Your task to perform on an android device: toggle notification dots Image 0: 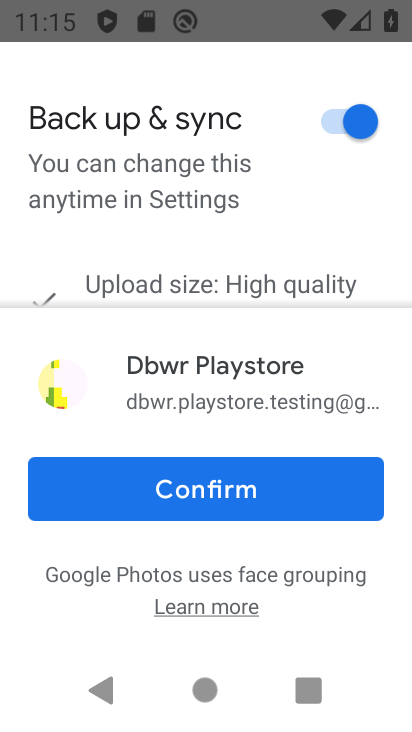
Step 0: press back button
Your task to perform on an android device: toggle notification dots Image 1: 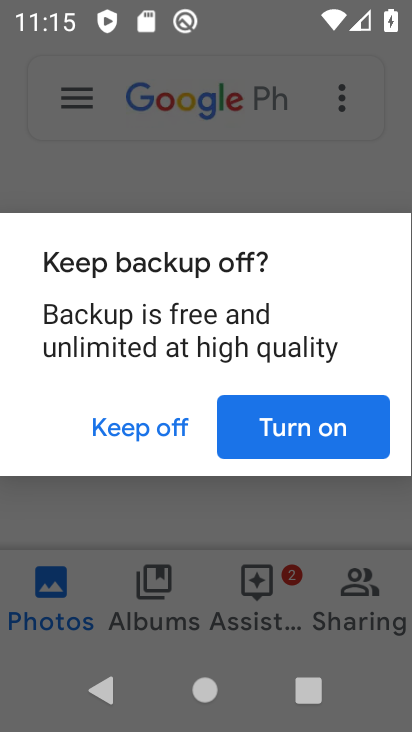
Step 1: press home button
Your task to perform on an android device: toggle notification dots Image 2: 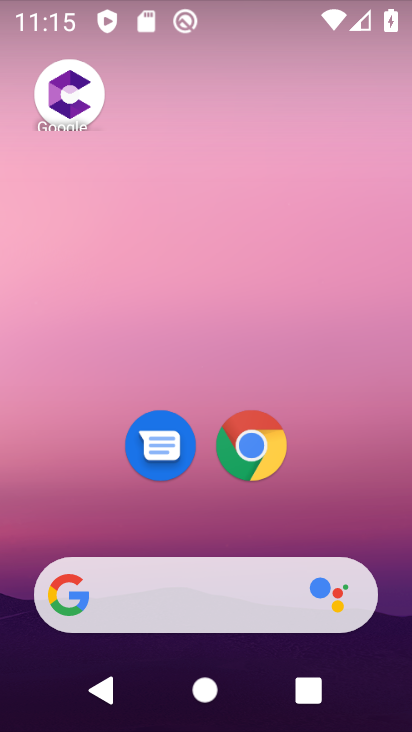
Step 2: drag from (163, 551) to (204, 270)
Your task to perform on an android device: toggle notification dots Image 3: 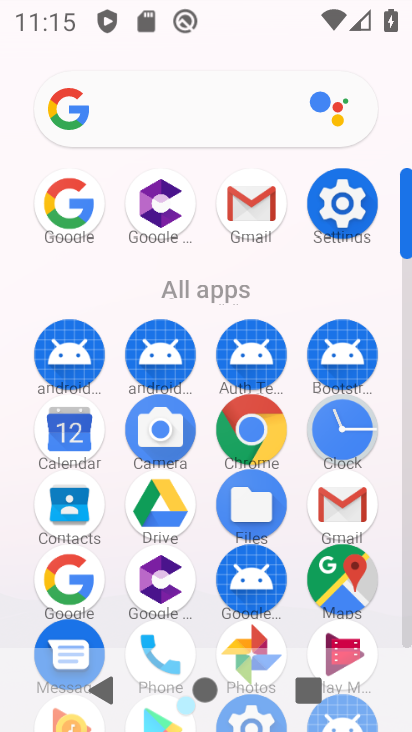
Step 3: drag from (164, 632) to (257, 240)
Your task to perform on an android device: toggle notification dots Image 4: 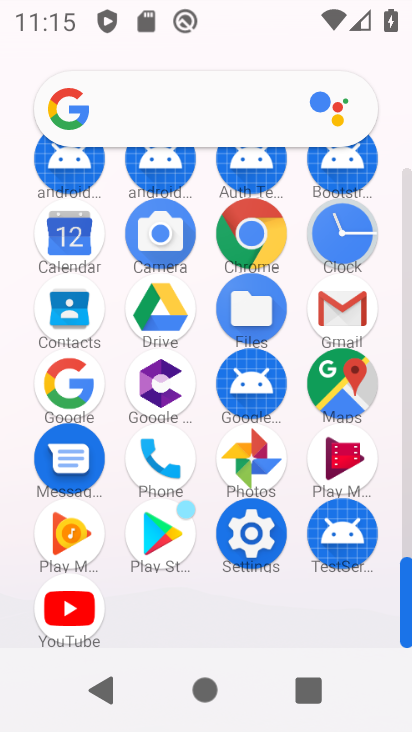
Step 4: click (233, 538)
Your task to perform on an android device: toggle notification dots Image 5: 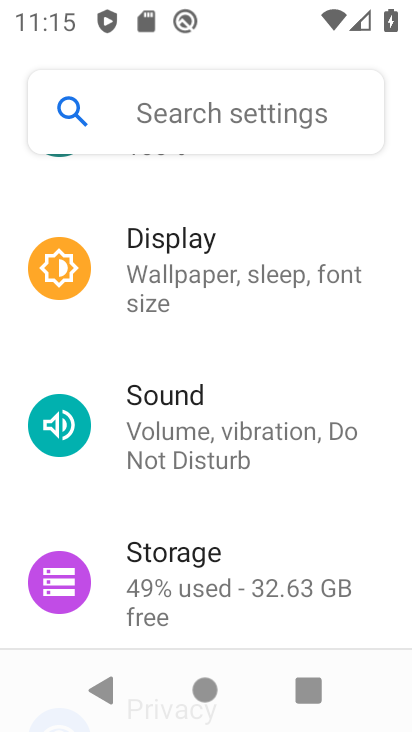
Step 5: drag from (200, 304) to (166, 719)
Your task to perform on an android device: toggle notification dots Image 6: 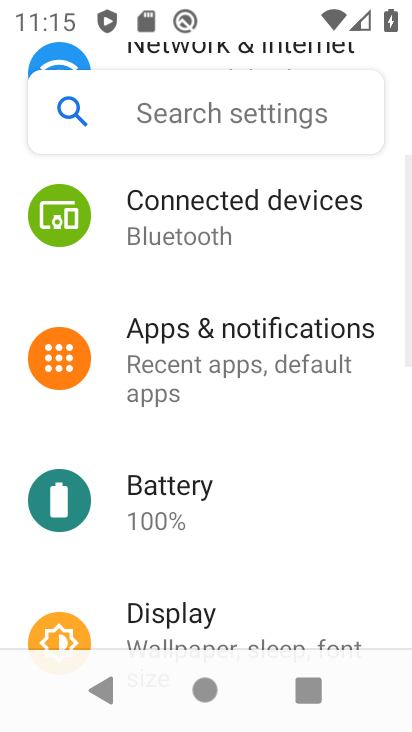
Step 6: click (202, 374)
Your task to perform on an android device: toggle notification dots Image 7: 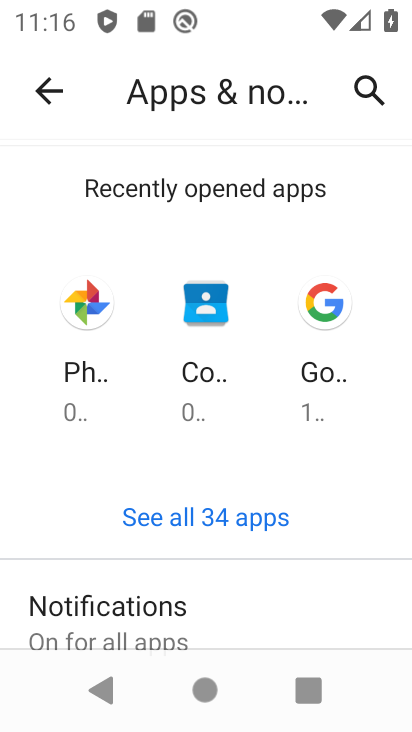
Step 7: click (152, 605)
Your task to perform on an android device: toggle notification dots Image 8: 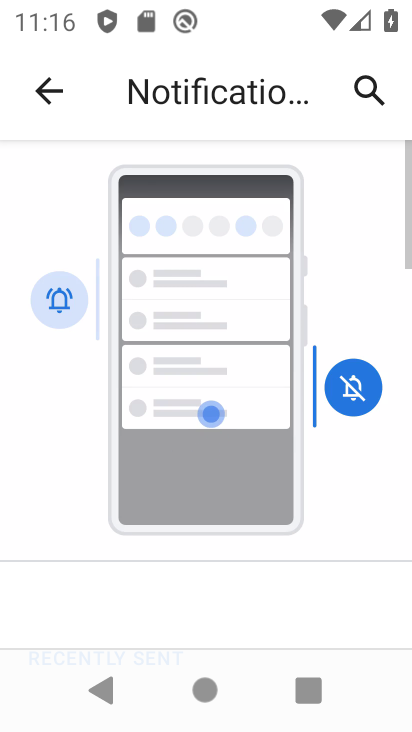
Step 8: drag from (168, 636) to (259, 186)
Your task to perform on an android device: toggle notification dots Image 9: 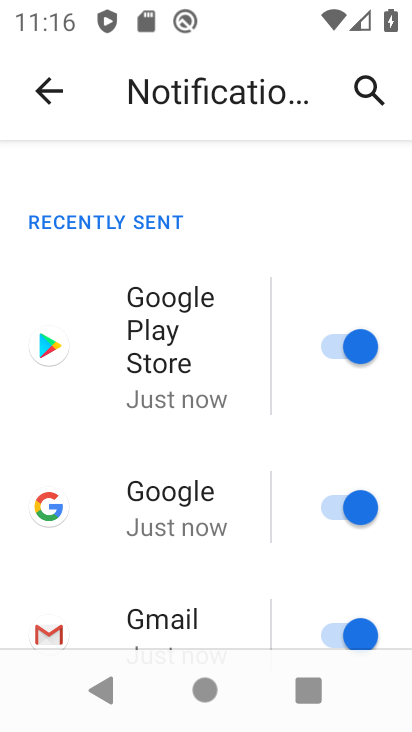
Step 9: drag from (104, 634) to (210, 148)
Your task to perform on an android device: toggle notification dots Image 10: 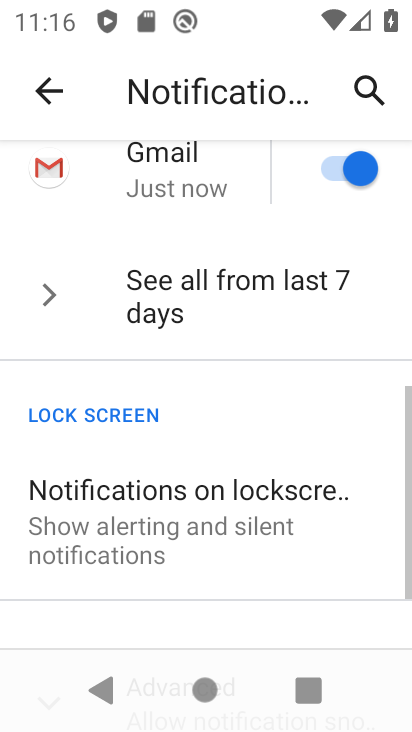
Step 10: drag from (180, 600) to (239, 268)
Your task to perform on an android device: toggle notification dots Image 11: 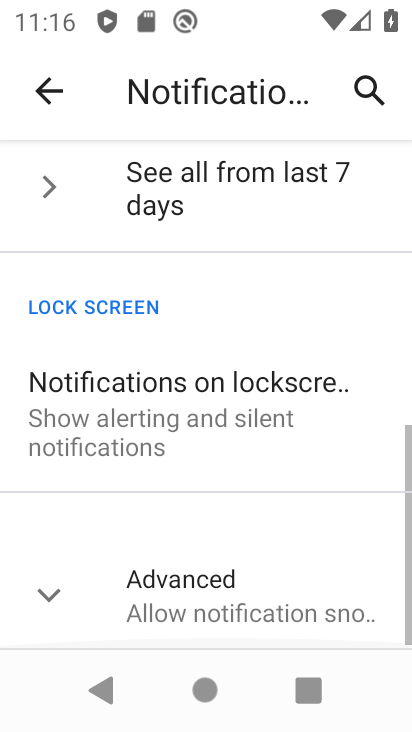
Step 11: click (242, 597)
Your task to perform on an android device: toggle notification dots Image 12: 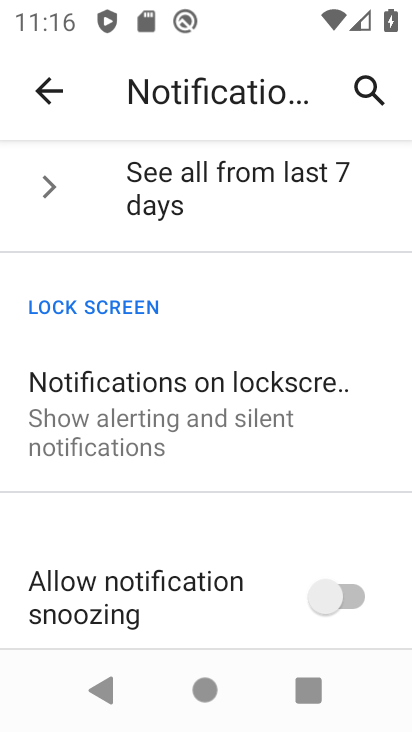
Step 12: drag from (195, 592) to (367, 214)
Your task to perform on an android device: toggle notification dots Image 13: 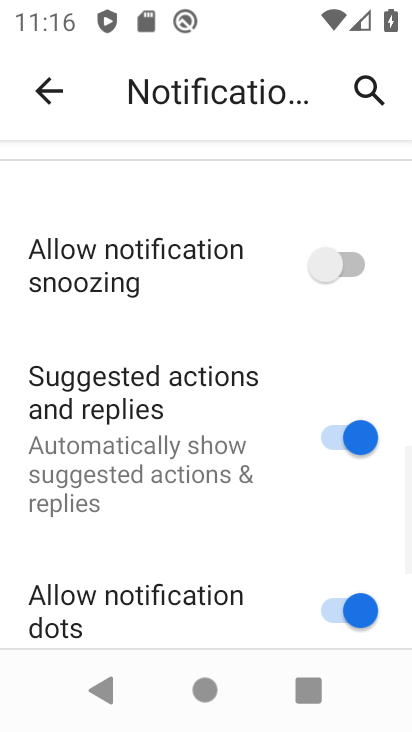
Step 13: drag from (97, 528) to (253, 251)
Your task to perform on an android device: toggle notification dots Image 14: 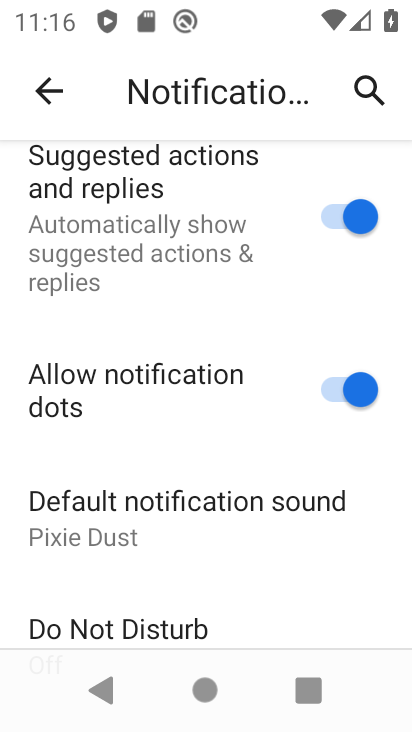
Step 14: click (336, 387)
Your task to perform on an android device: toggle notification dots Image 15: 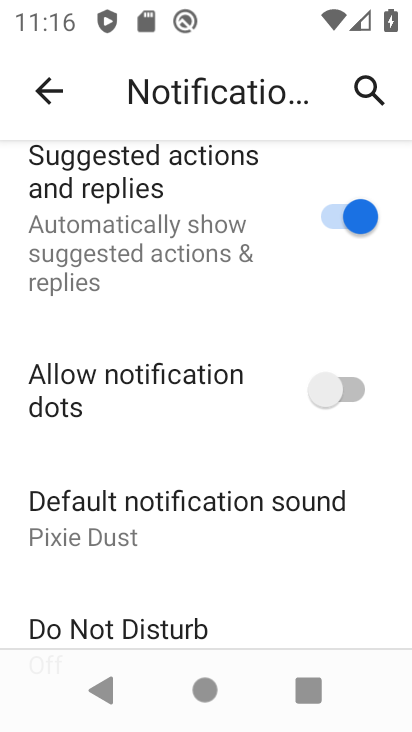
Step 15: task complete